Your task to perform on an android device: Show me the alarms in the clock app Image 0: 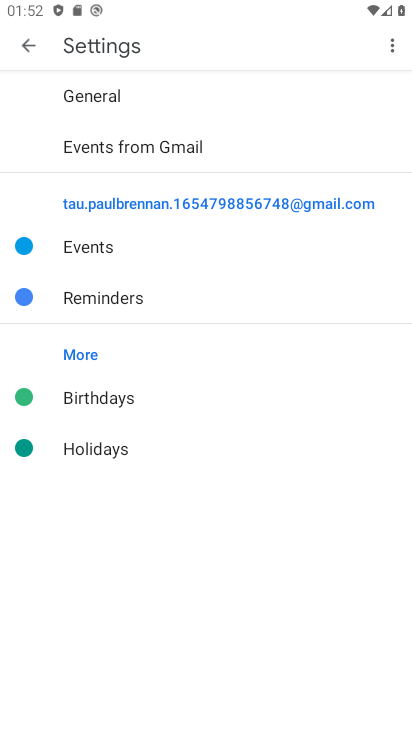
Step 0: press home button
Your task to perform on an android device: Show me the alarms in the clock app Image 1: 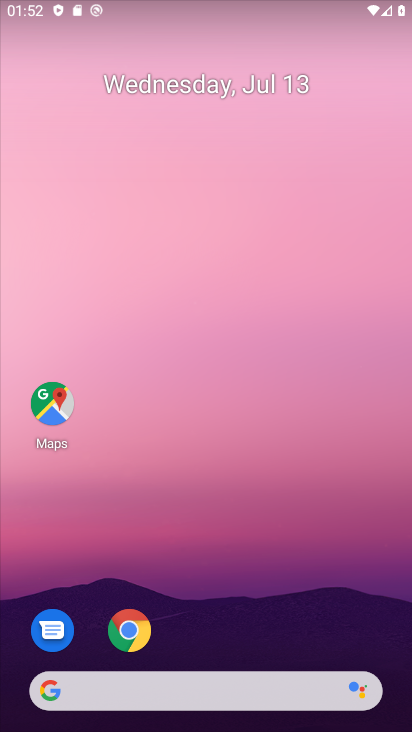
Step 1: drag from (211, 615) to (172, 237)
Your task to perform on an android device: Show me the alarms in the clock app Image 2: 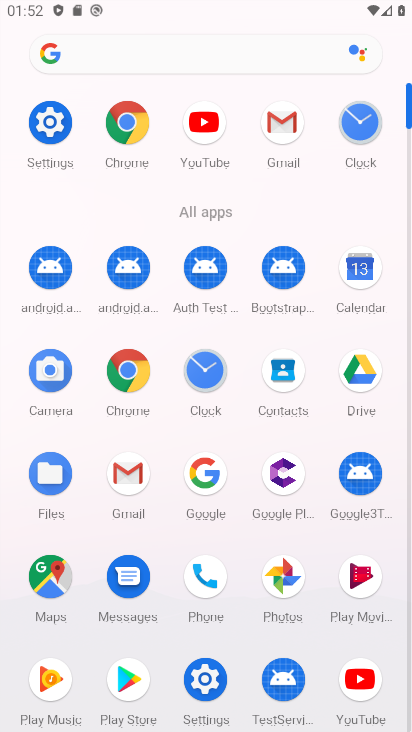
Step 2: click (202, 357)
Your task to perform on an android device: Show me the alarms in the clock app Image 3: 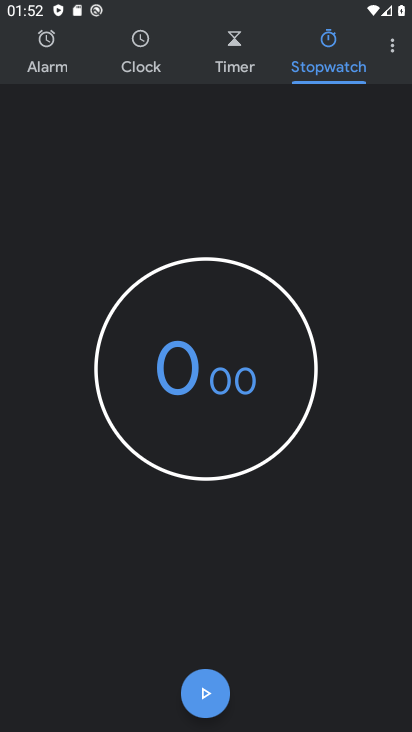
Step 3: click (63, 49)
Your task to perform on an android device: Show me the alarms in the clock app Image 4: 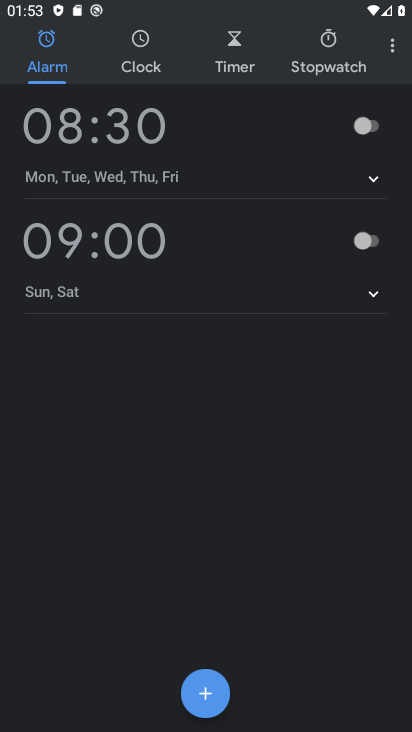
Step 4: task complete